Your task to perform on an android device: Open Google Maps and go to "Timeline" Image 0: 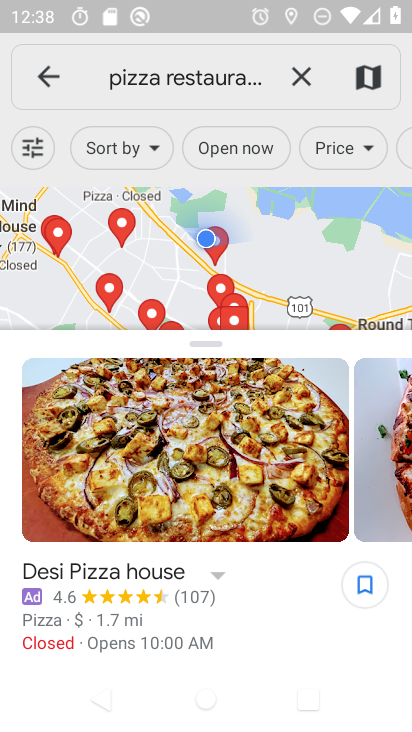
Step 0: click (55, 81)
Your task to perform on an android device: Open Google Maps and go to "Timeline" Image 1: 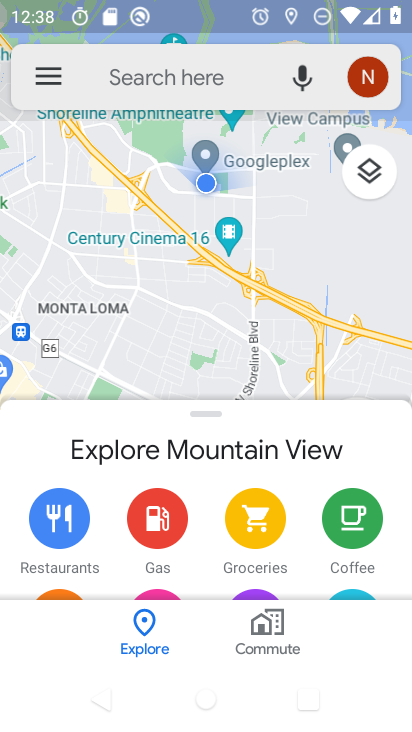
Step 1: click (54, 75)
Your task to perform on an android device: Open Google Maps and go to "Timeline" Image 2: 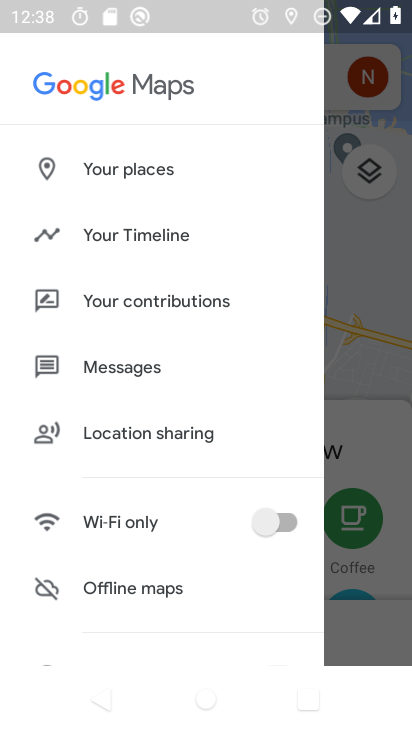
Step 2: click (131, 244)
Your task to perform on an android device: Open Google Maps and go to "Timeline" Image 3: 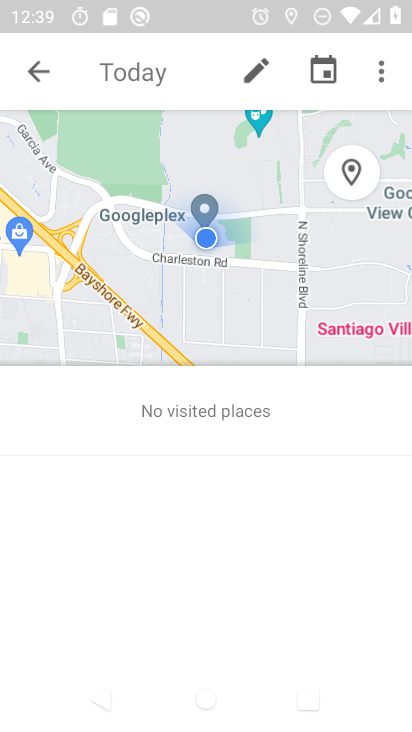
Step 3: task complete